Your task to perform on an android device: manage bookmarks in the chrome app Image 0: 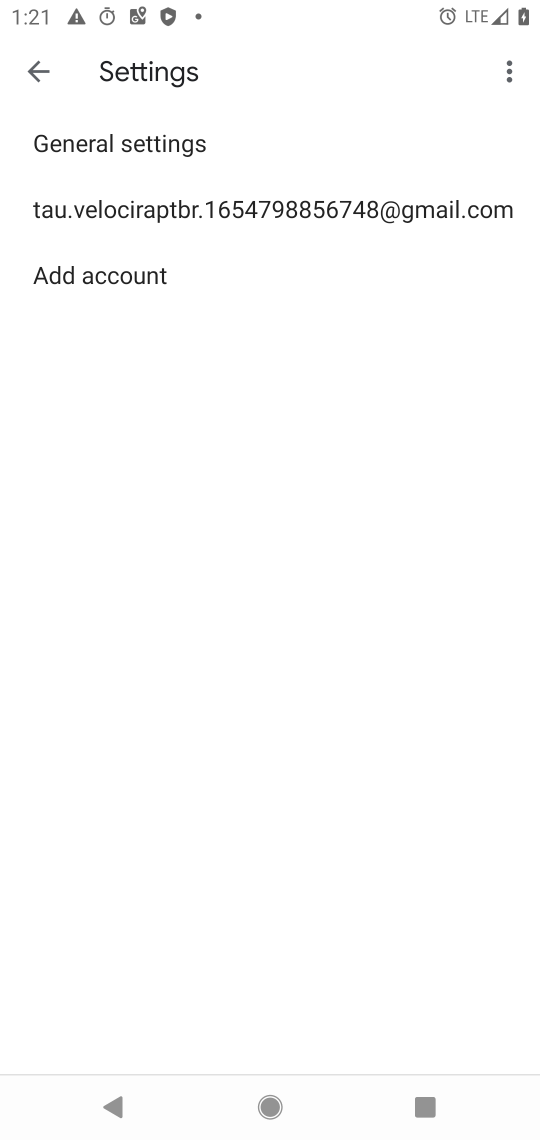
Step 0: press home button
Your task to perform on an android device: manage bookmarks in the chrome app Image 1: 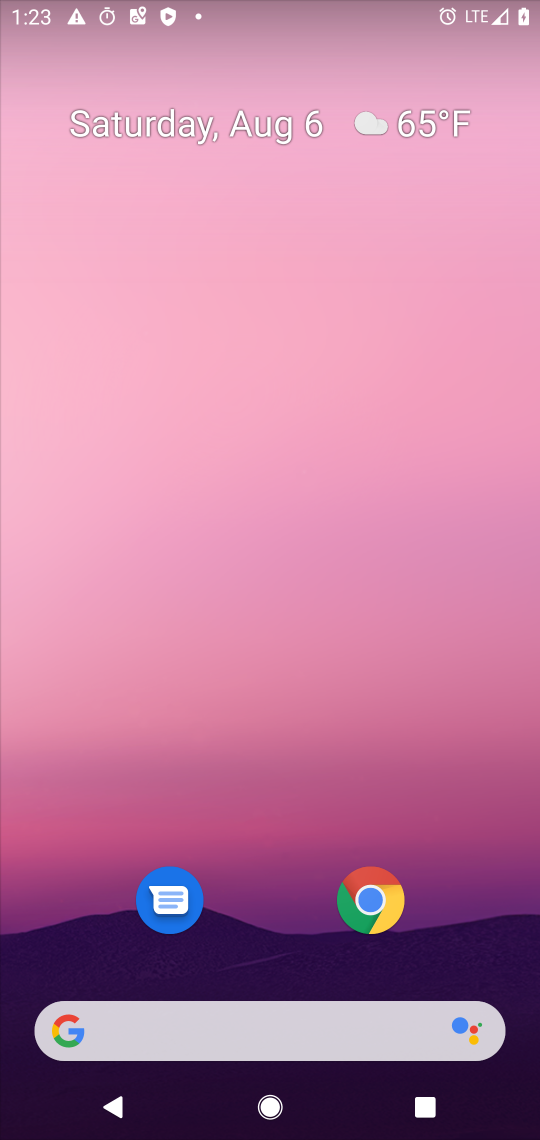
Step 1: click (368, 900)
Your task to perform on an android device: manage bookmarks in the chrome app Image 2: 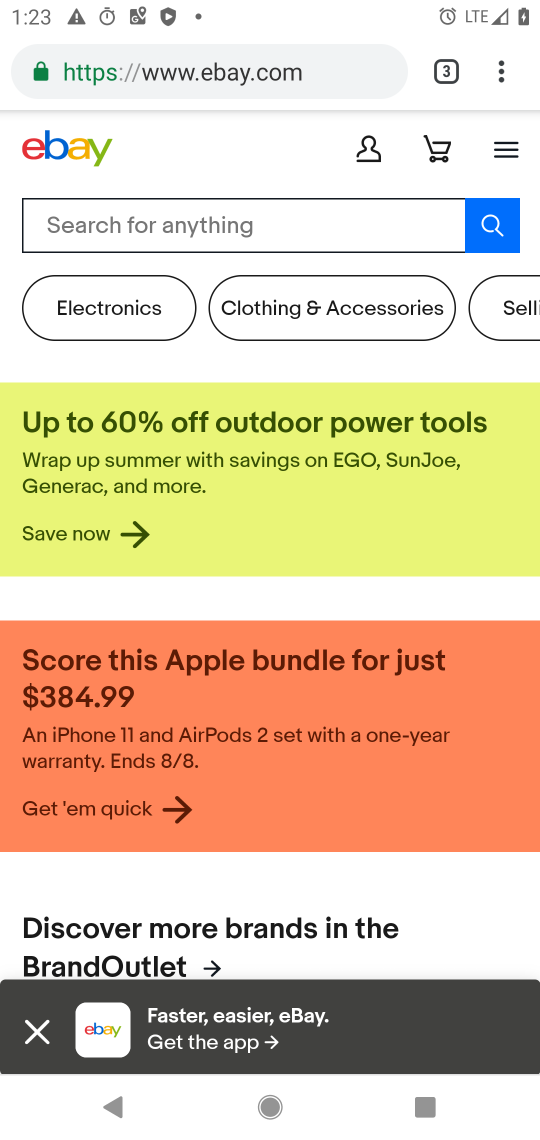
Step 2: click (499, 82)
Your task to perform on an android device: manage bookmarks in the chrome app Image 3: 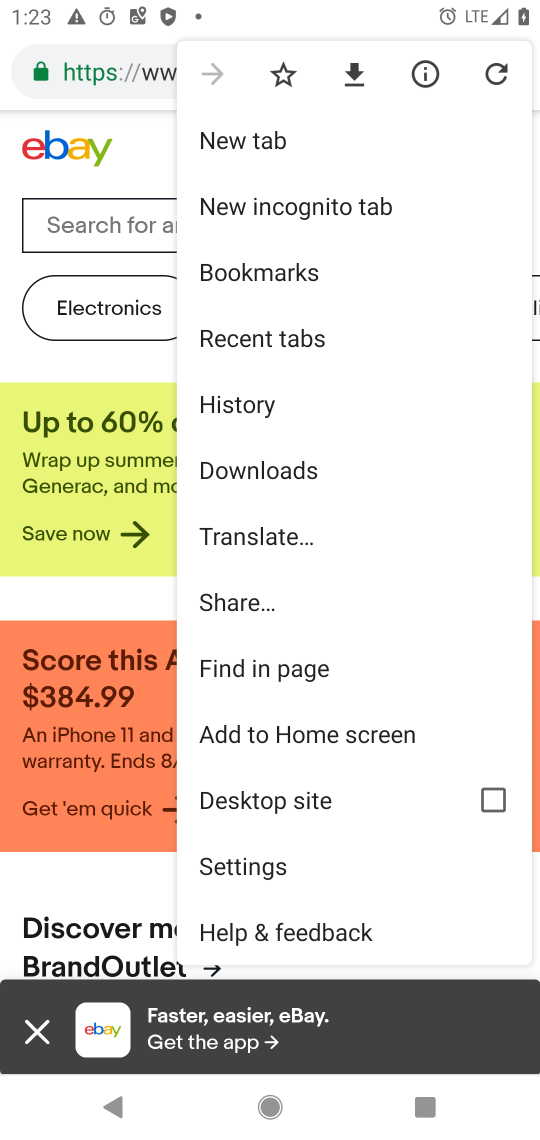
Step 3: click (272, 264)
Your task to perform on an android device: manage bookmarks in the chrome app Image 4: 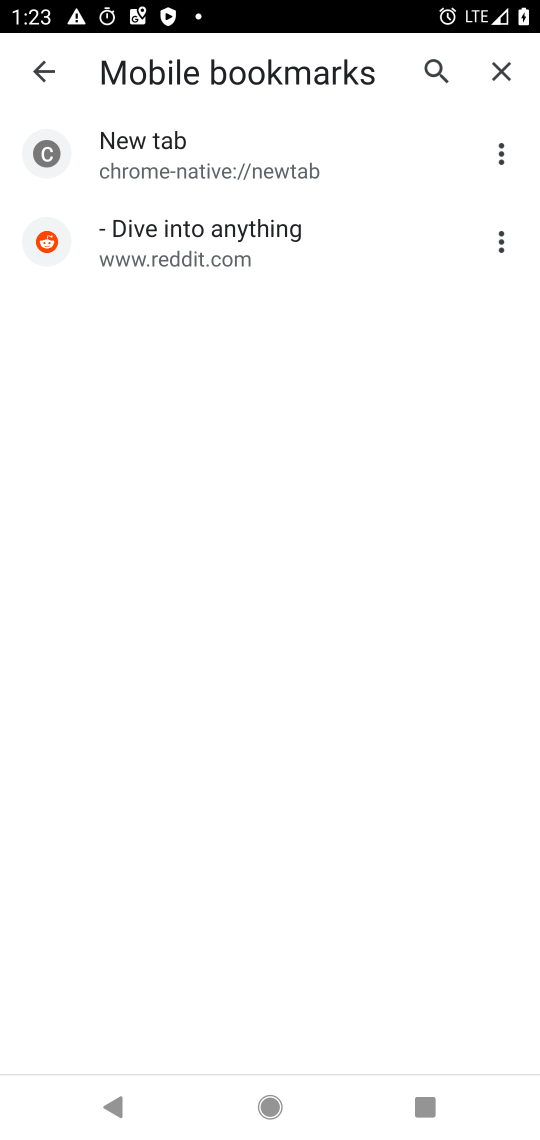
Step 4: click (503, 144)
Your task to perform on an android device: manage bookmarks in the chrome app Image 5: 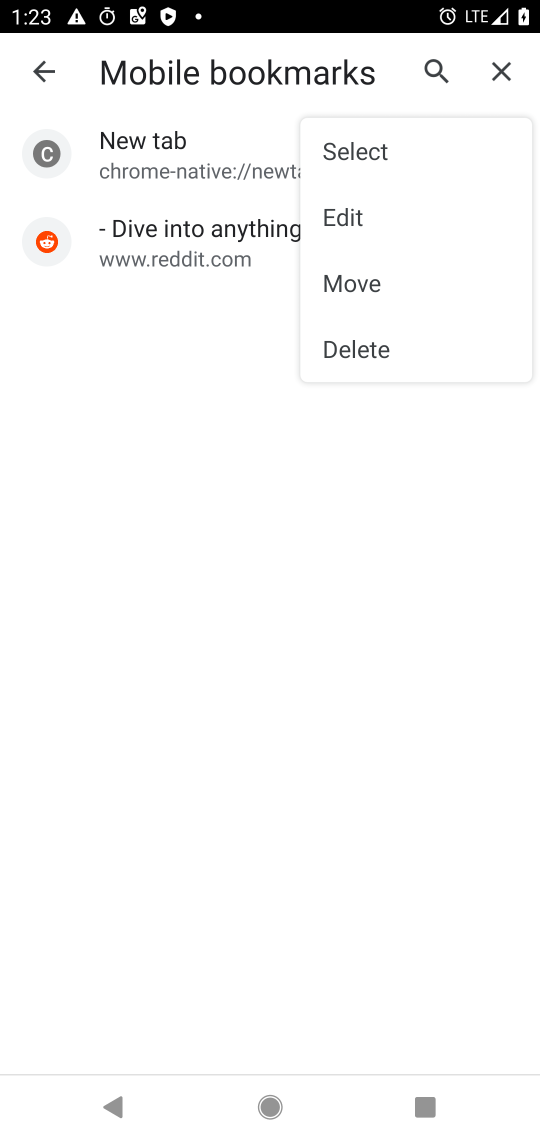
Step 5: click (330, 217)
Your task to perform on an android device: manage bookmarks in the chrome app Image 6: 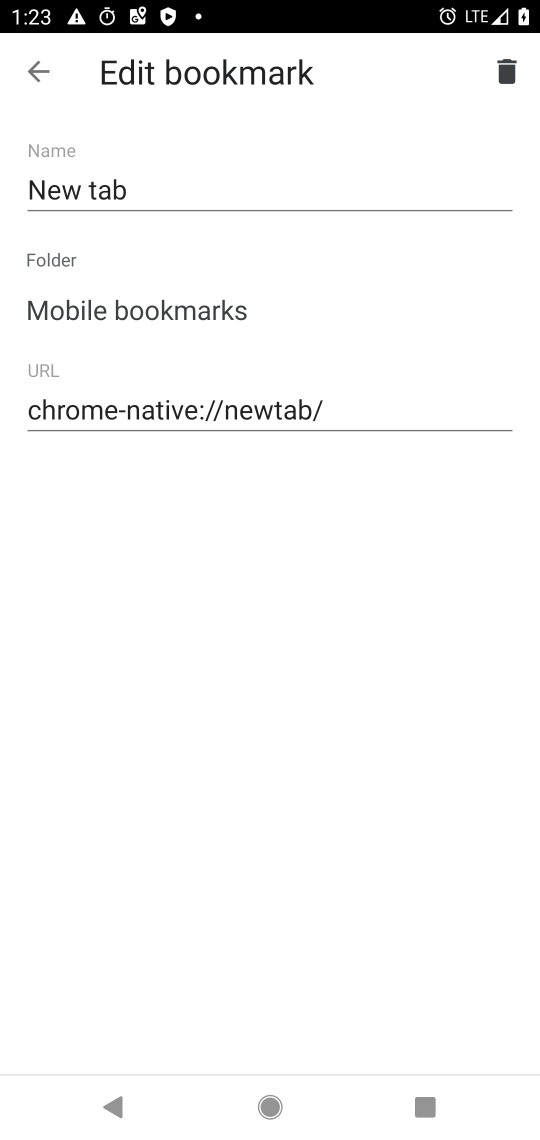
Step 6: click (335, 216)
Your task to perform on an android device: manage bookmarks in the chrome app Image 7: 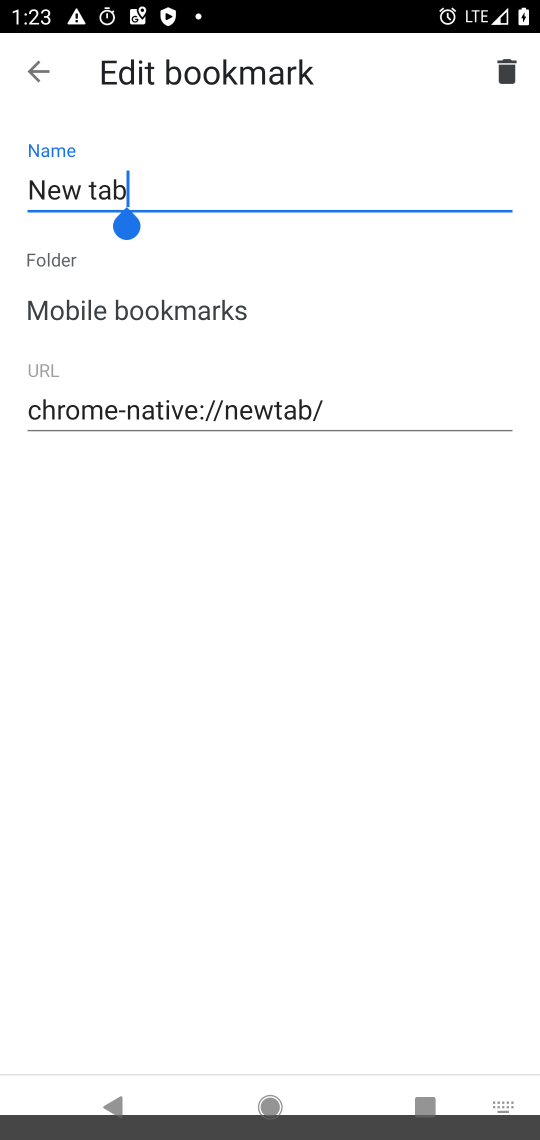
Step 7: click (122, 184)
Your task to perform on an android device: manage bookmarks in the chrome app Image 8: 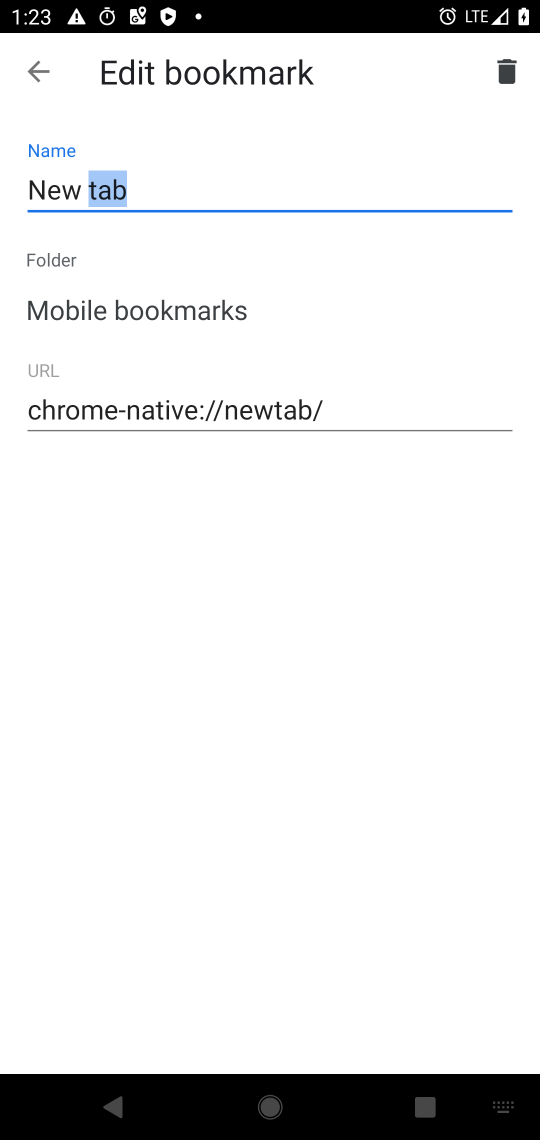
Step 8: click (101, 184)
Your task to perform on an android device: manage bookmarks in the chrome app Image 9: 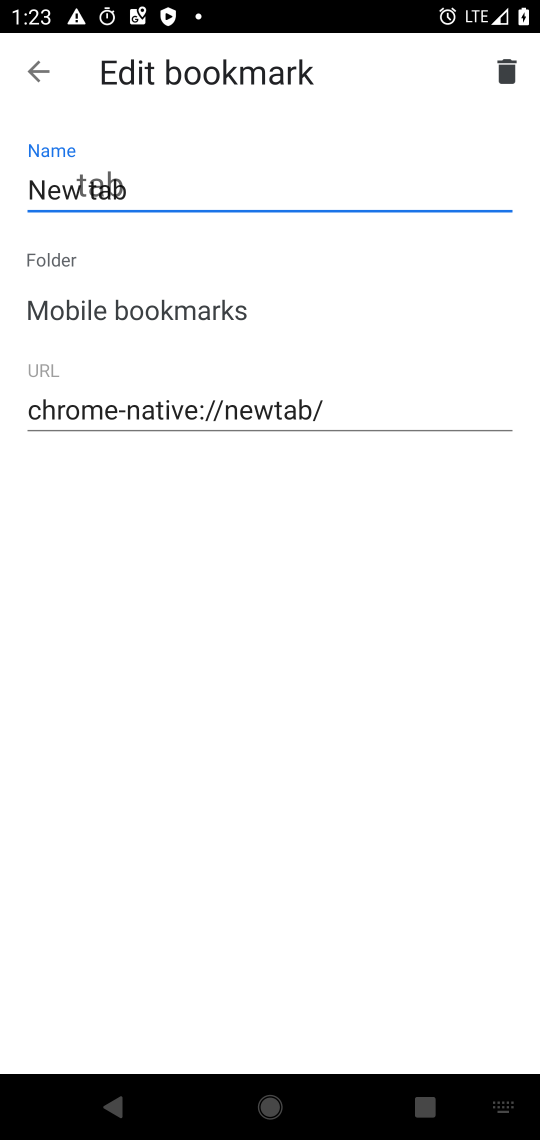
Step 9: click (117, 183)
Your task to perform on an android device: manage bookmarks in the chrome app Image 10: 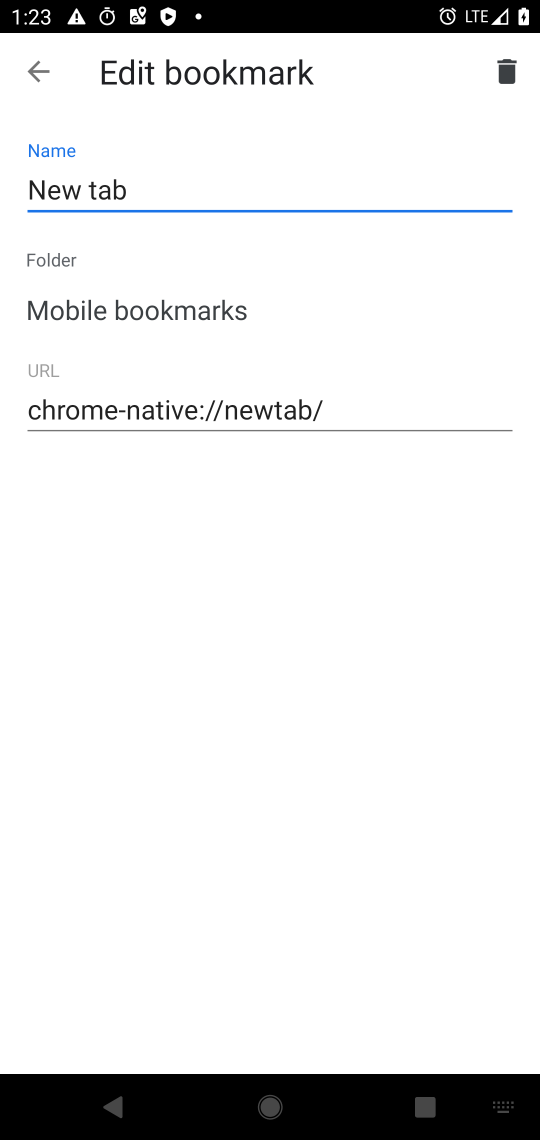
Step 10: click (104, 184)
Your task to perform on an android device: manage bookmarks in the chrome app Image 11: 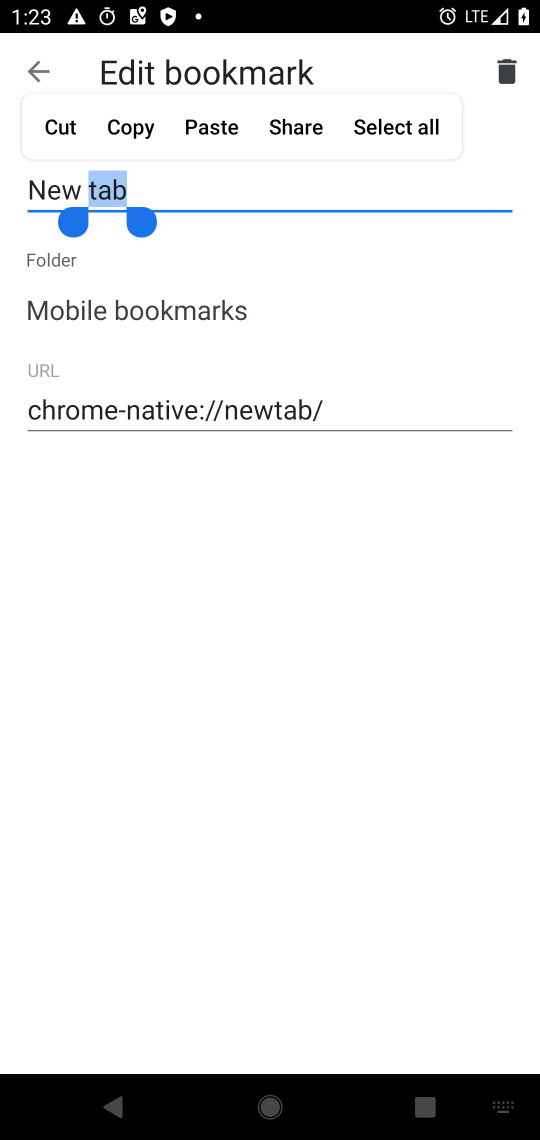
Step 11: click (69, 117)
Your task to perform on an android device: manage bookmarks in the chrome app Image 12: 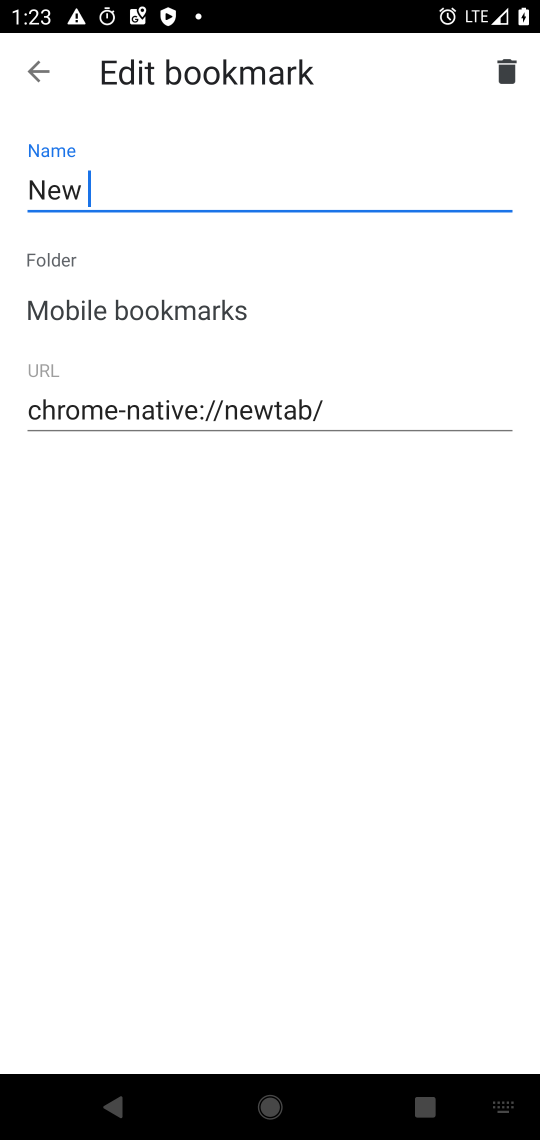
Step 12: click (35, 77)
Your task to perform on an android device: manage bookmarks in the chrome app Image 13: 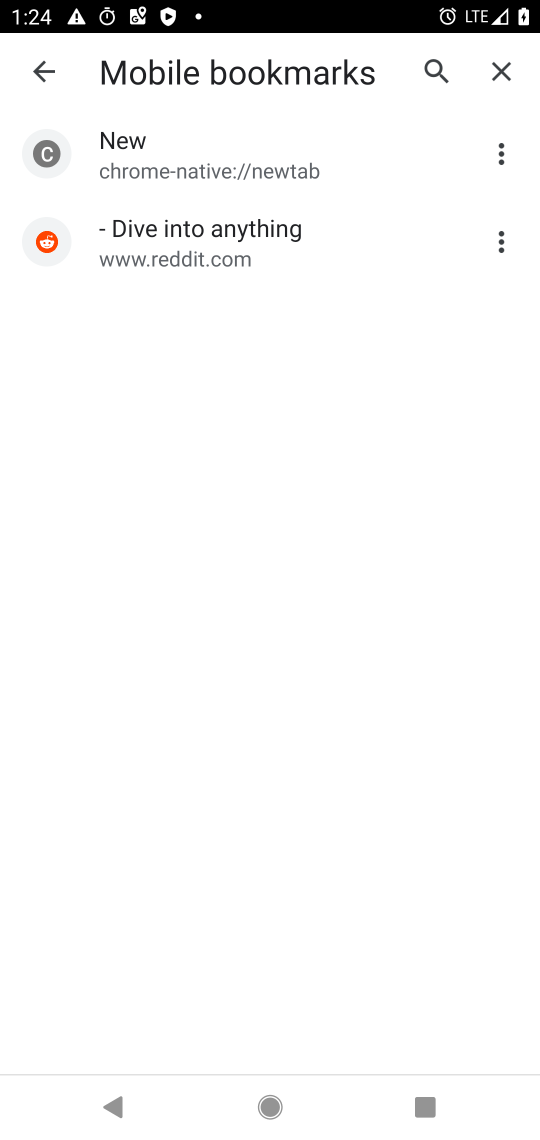
Step 13: task complete